Your task to perform on an android device: Go to ESPN.com Image 0: 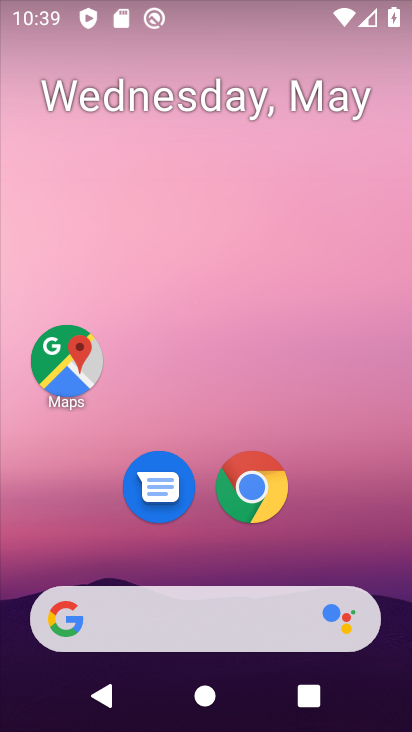
Step 0: click (255, 477)
Your task to perform on an android device: Go to ESPN.com Image 1: 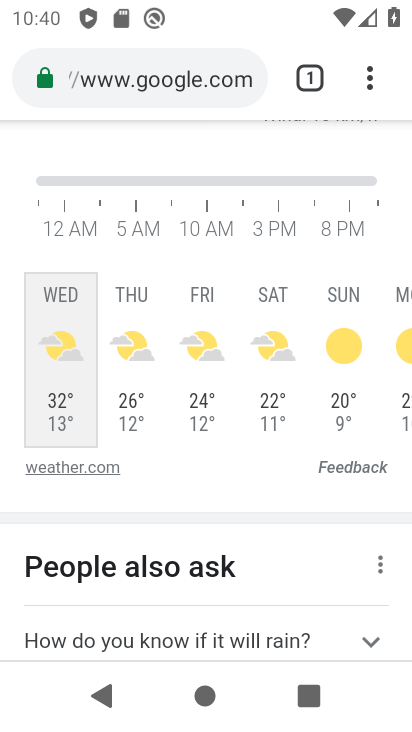
Step 1: click (143, 88)
Your task to perform on an android device: Go to ESPN.com Image 2: 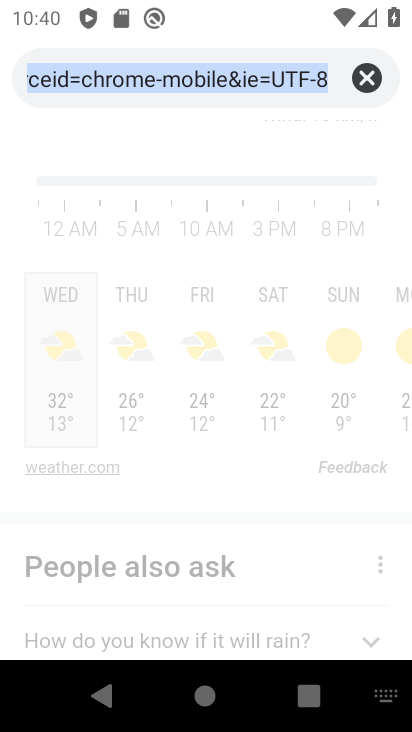
Step 2: type "ESPN.com"
Your task to perform on an android device: Go to ESPN.com Image 3: 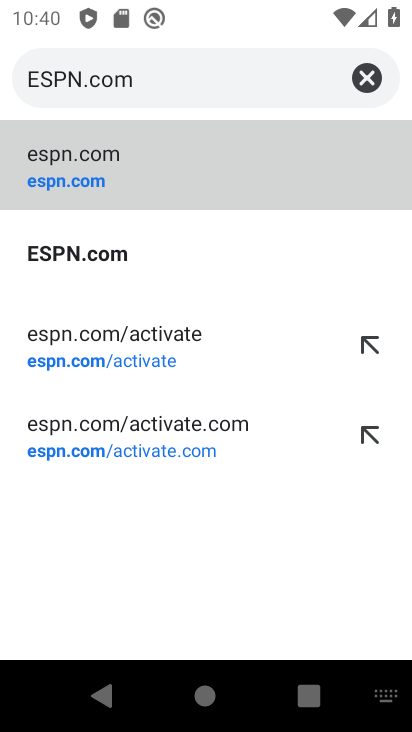
Step 3: click (183, 186)
Your task to perform on an android device: Go to ESPN.com Image 4: 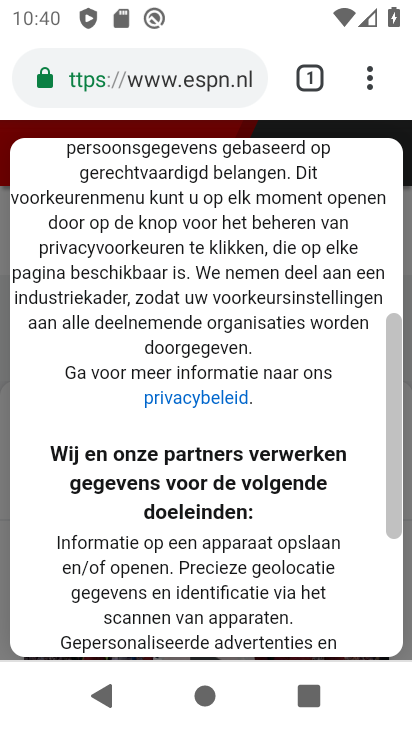
Step 4: task complete